Your task to perform on an android device: turn vacation reply on in the gmail app Image 0: 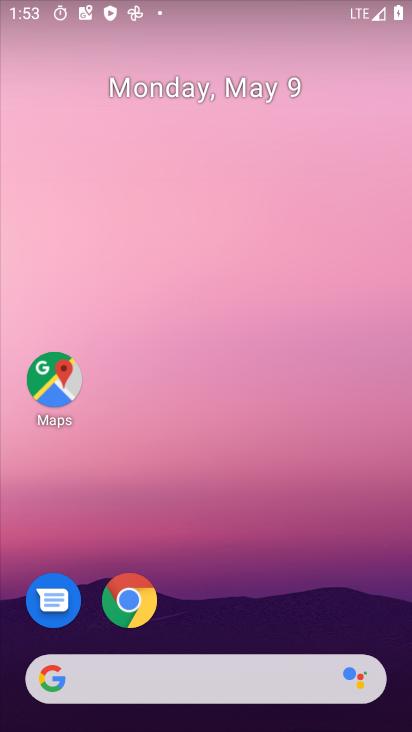
Step 0: drag from (229, 617) to (301, 179)
Your task to perform on an android device: turn vacation reply on in the gmail app Image 1: 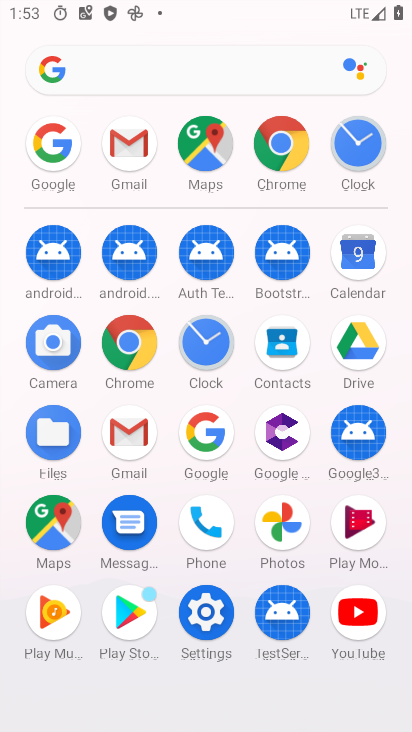
Step 1: click (109, 452)
Your task to perform on an android device: turn vacation reply on in the gmail app Image 2: 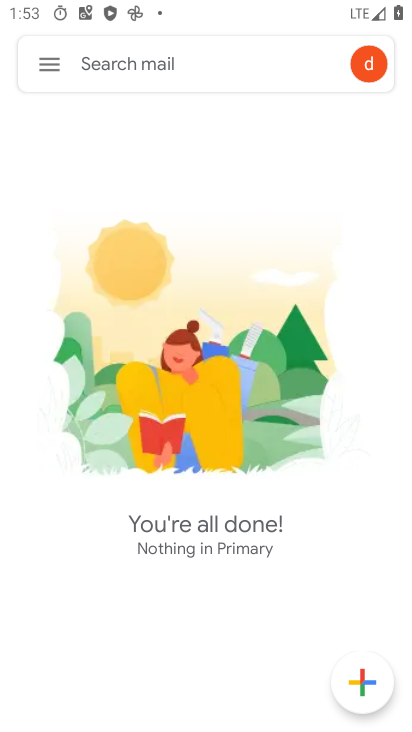
Step 2: click (44, 77)
Your task to perform on an android device: turn vacation reply on in the gmail app Image 3: 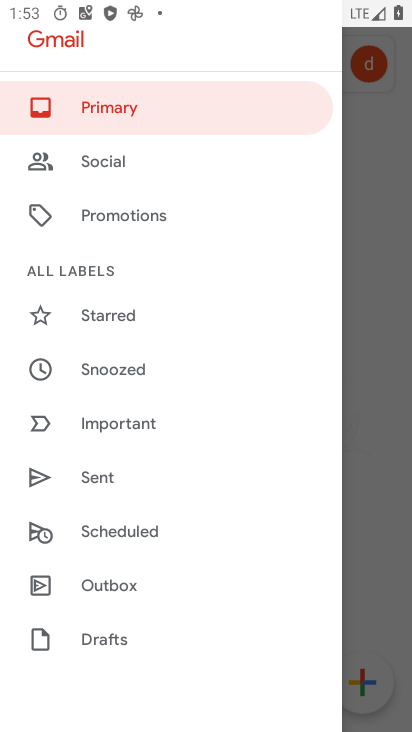
Step 3: drag from (75, 495) to (99, 521)
Your task to perform on an android device: turn vacation reply on in the gmail app Image 4: 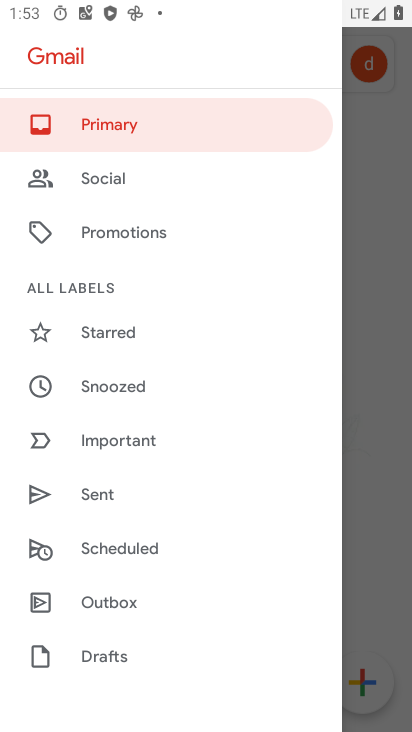
Step 4: drag from (137, 545) to (158, 185)
Your task to perform on an android device: turn vacation reply on in the gmail app Image 5: 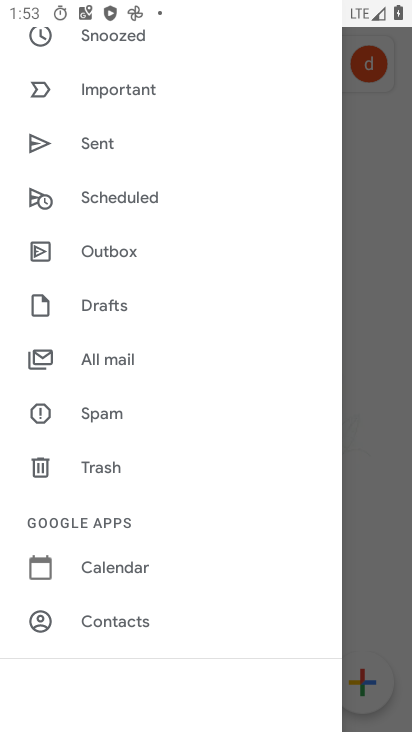
Step 5: drag from (130, 592) to (166, 223)
Your task to perform on an android device: turn vacation reply on in the gmail app Image 6: 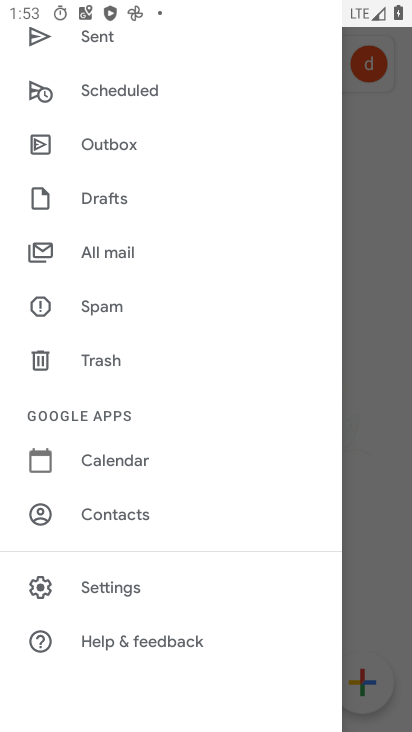
Step 6: click (135, 592)
Your task to perform on an android device: turn vacation reply on in the gmail app Image 7: 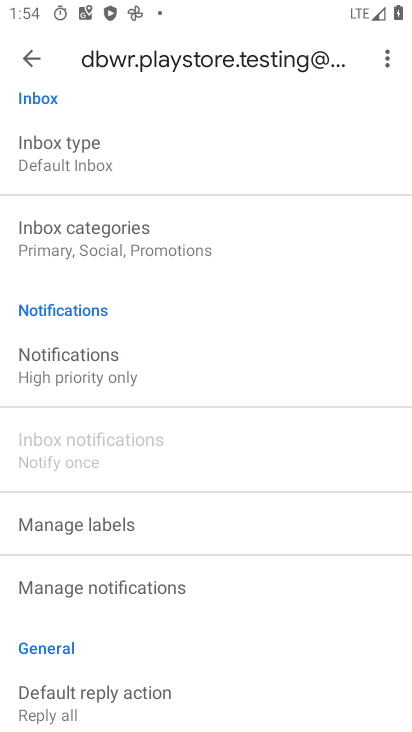
Step 7: drag from (149, 597) to (165, 228)
Your task to perform on an android device: turn vacation reply on in the gmail app Image 8: 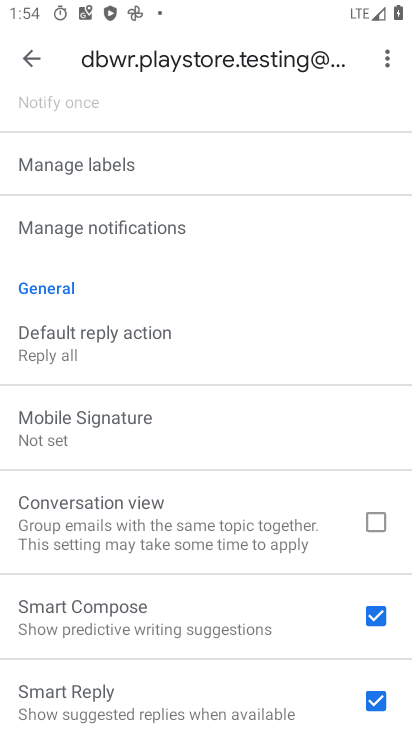
Step 8: drag from (219, 621) to (234, 274)
Your task to perform on an android device: turn vacation reply on in the gmail app Image 9: 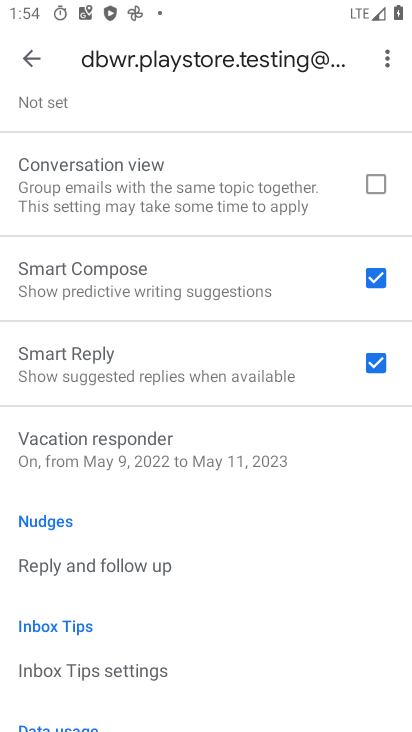
Step 9: drag from (113, 587) to (153, 329)
Your task to perform on an android device: turn vacation reply on in the gmail app Image 10: 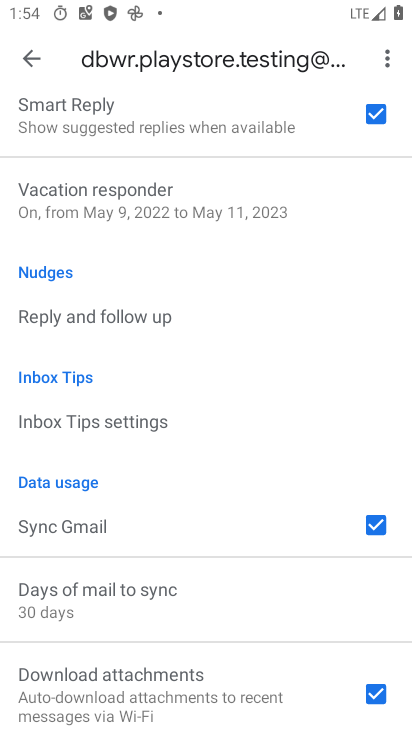
Step 10: click (143, 221)
Your task to perform on an android device: turn vacation reply on in the gmail app Image 11: 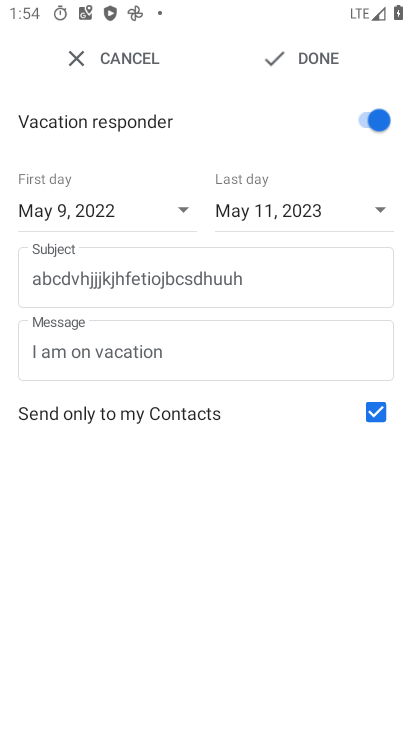
Step 11: click (312, 62)
Your task to perform on an android device: turn vacation reply on in the gmail app Image 12: 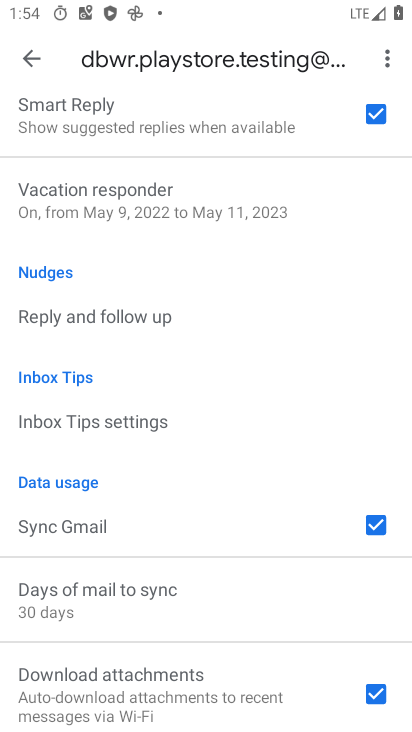
Step 12: task complete